Your task to perform on an android device: Open maps Image 0: 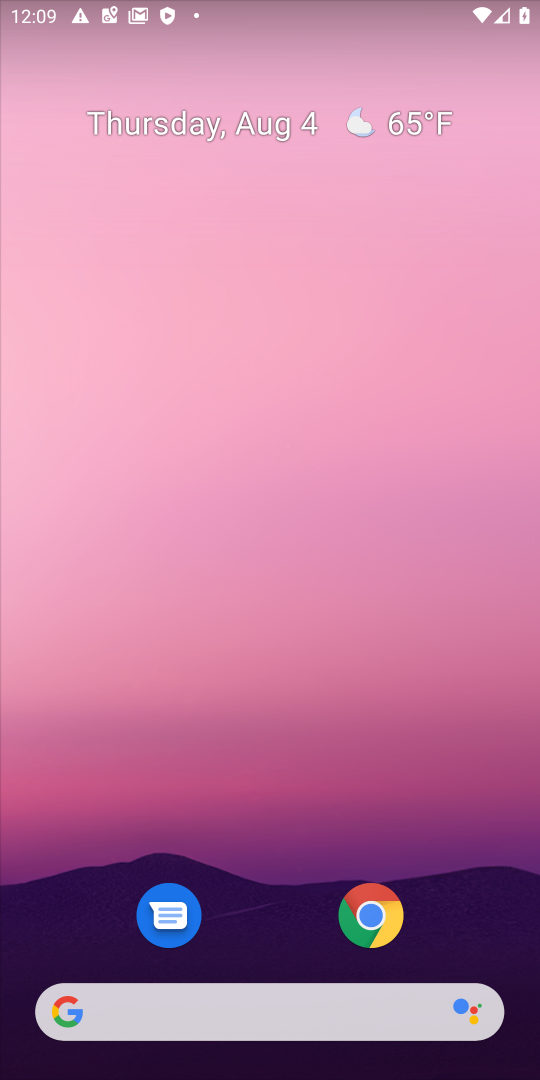
Step 0: drag from (220, 504) to (212, 79)
Your task to perform on an android device: Open maps Image 1: 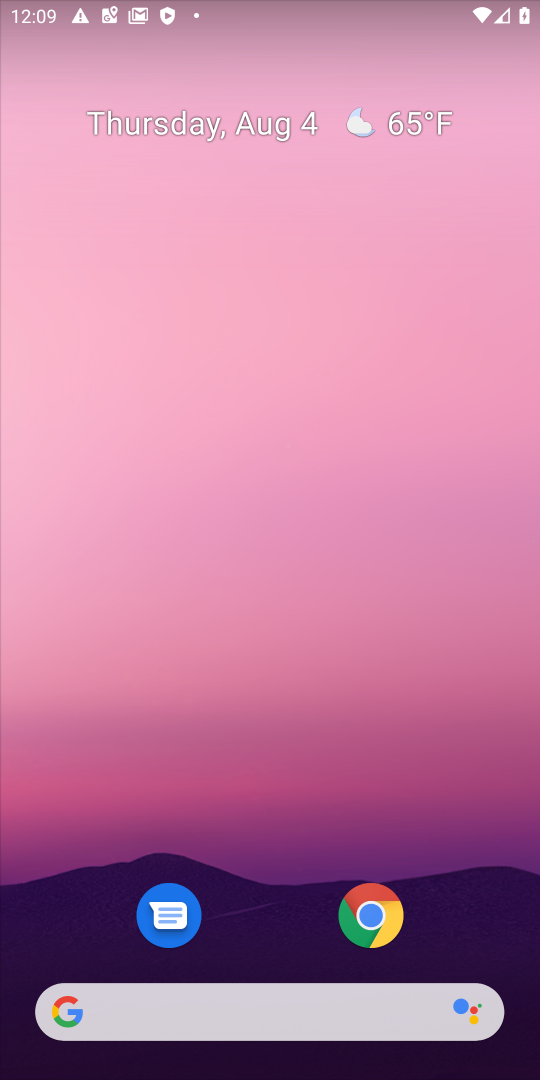
Step 1: drag from (264, 903) to (320, 317)
Your task to perform on an android device: Open maps Image 2: 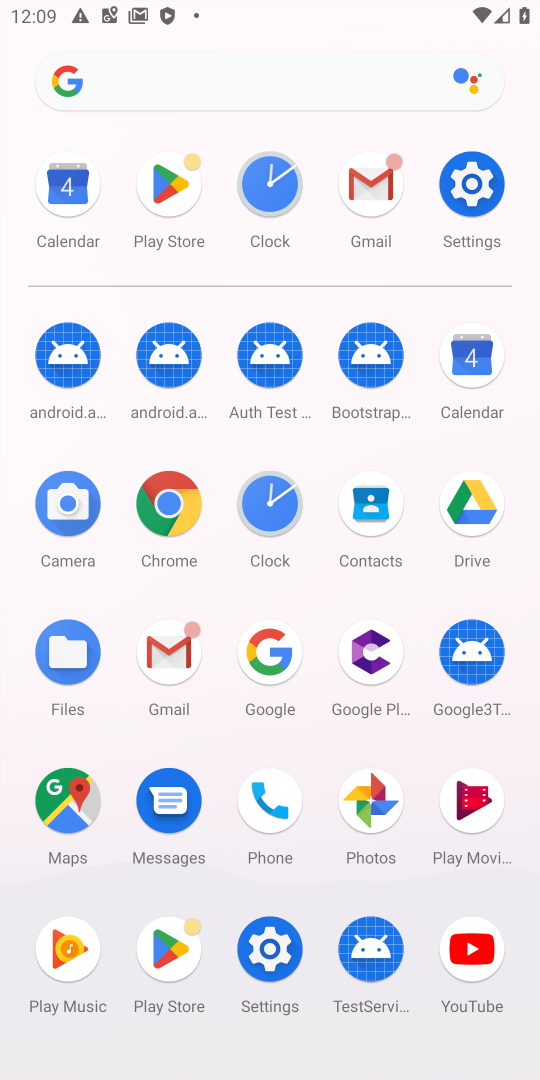
Step 2: click (72, 814)
Your task to perform on an android device: Open maps Image 3: 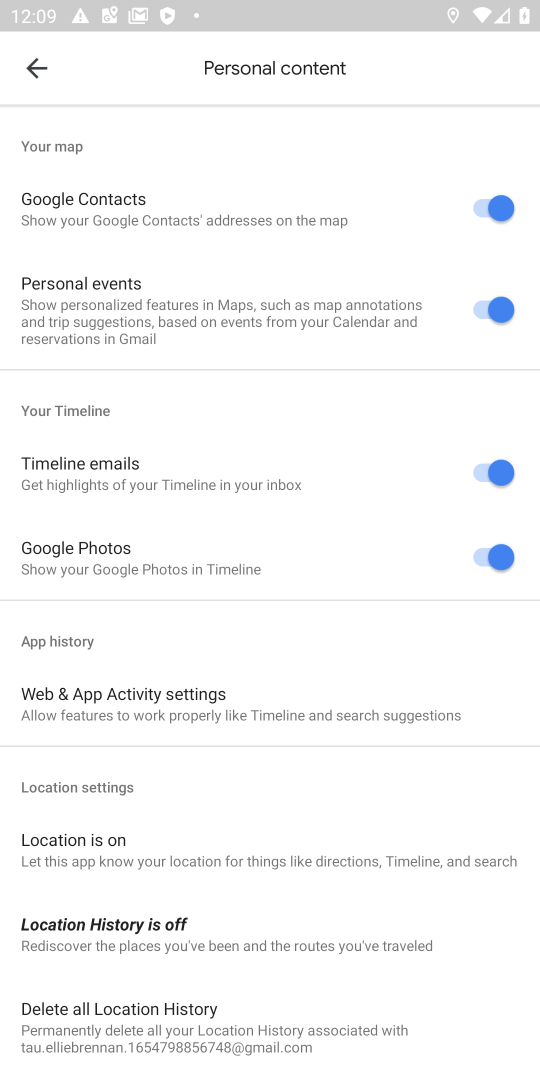
Step 3: click (36, 63)
Your task to perform on an android device: Open maps Image 4: 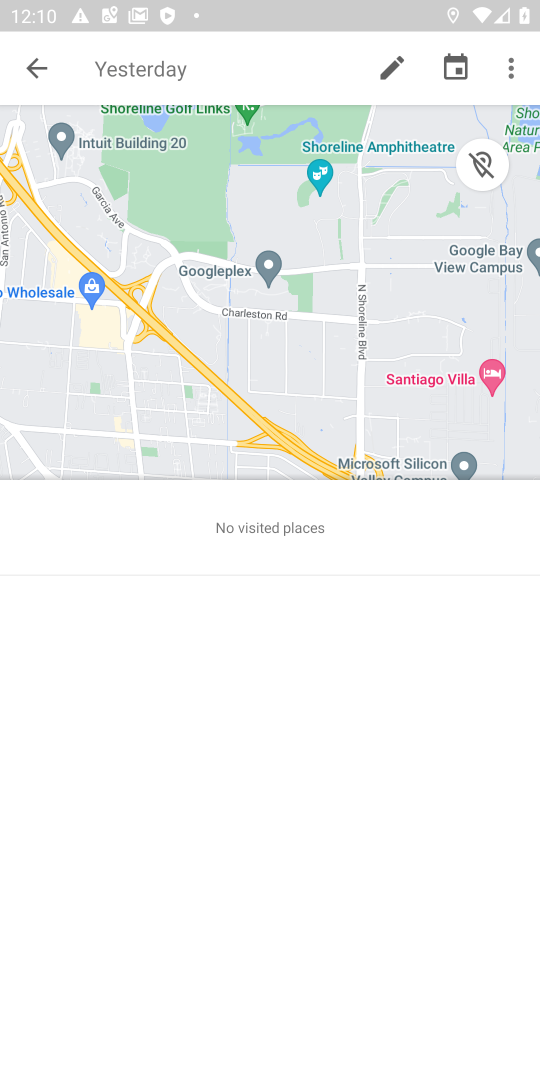
Step 4: task complete